Your task to perform on an android device: Open Google Chrome and click the shortcut for Amazon.com Image 0: 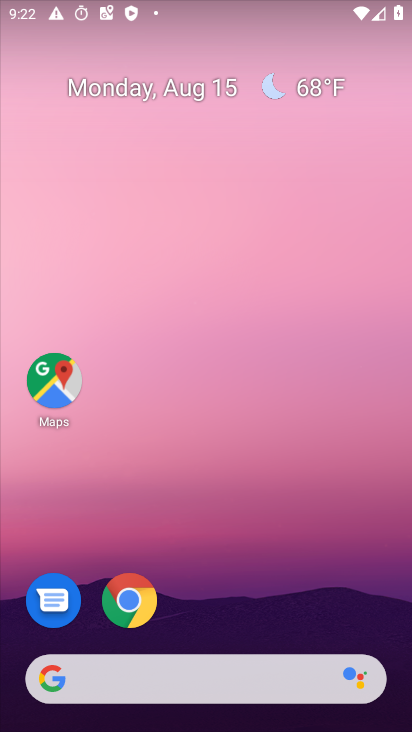
Step 0: click (130, 603)
Your task to perform on an android device: Open Google Chrome and click the shortcut for Amazon.com Image 1: 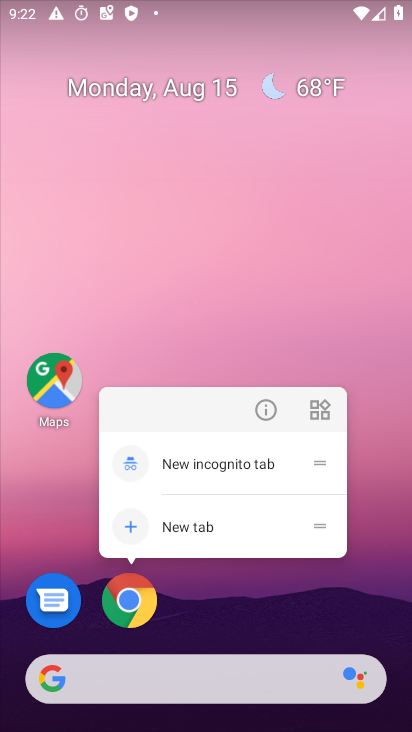
Step 1: click (130, 603)
Your task to perform on an android device: Open Google Chrome and click the shortcut for Amazon.com Image 2: 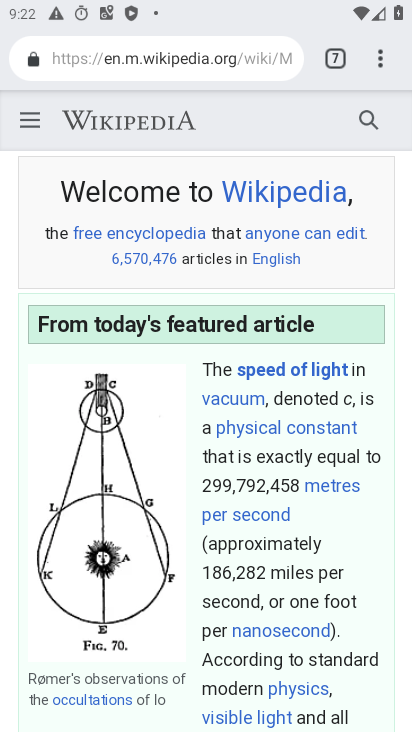
Step 2: click (380, 63)
Your task to perform on an android device: Open Google Chrome and click the shortcut for Amazon.com Image 3: 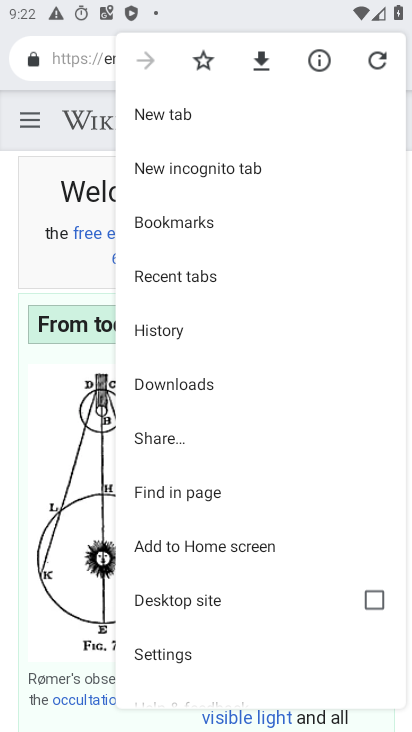
Step 3: click (170, 108)
Your task to perform on an android device: Open Google Chrome and click the shortcut for Amazon.com Image 4: 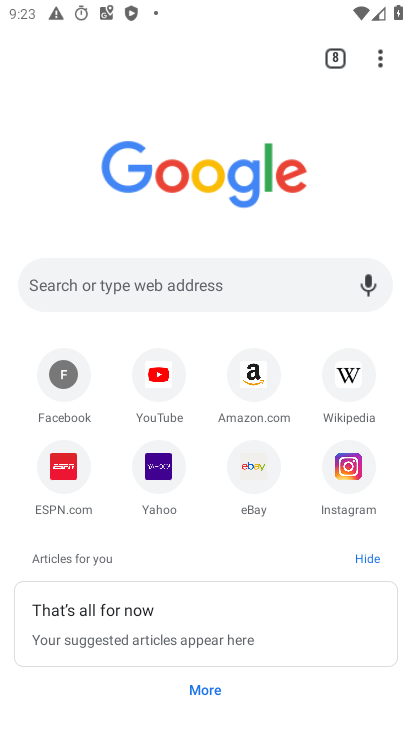
Step 4: click (253, 377)
Your task to perform on an android device: Open Google Chrome and click the shortcut for Amazon.com Image 5: 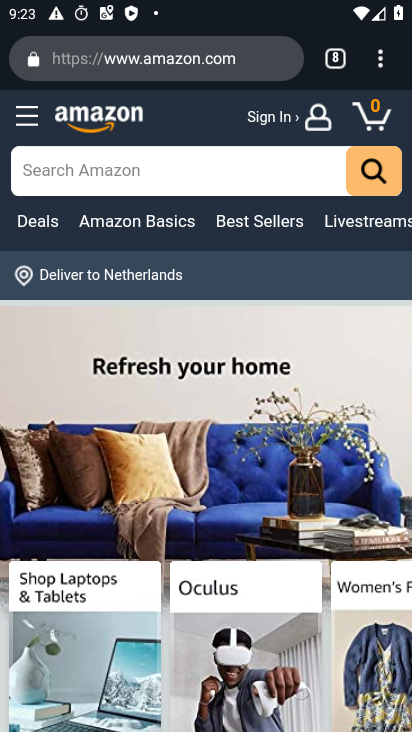
Step 5: task complete